Your task to perform on an android device: change timer sound Image 0: 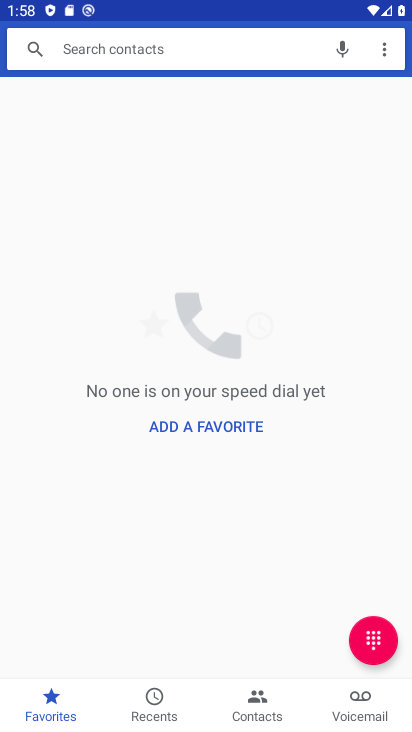
Step 0: press home button
Your task to perform on an android device: change timer sound Image 1: 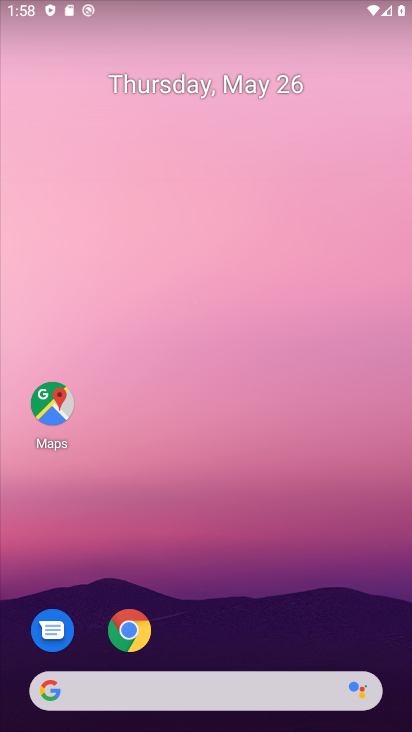
Step 1: drag from (179, 508) to (173, 43)
Your task to perform on an android device: change timer sound Image 2: 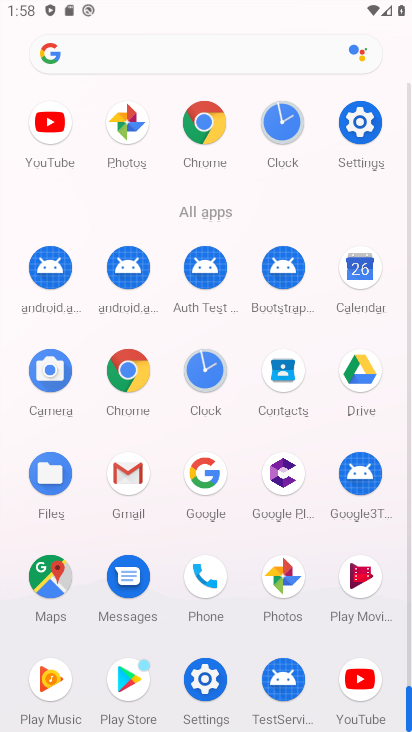
Step 2: click (278, 139)
Your task to perform on an android device: change timer sound Image 3: 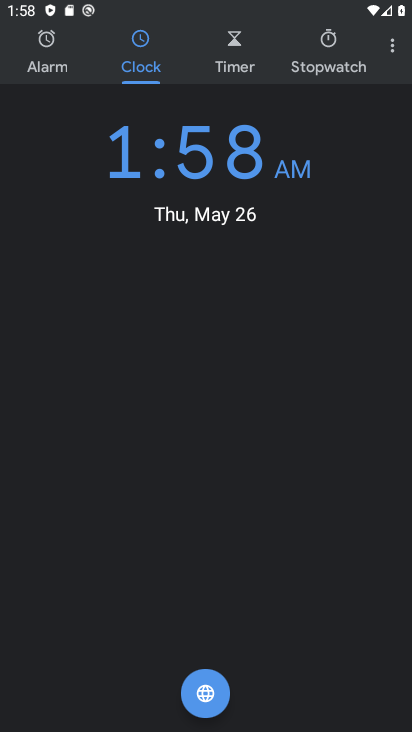
Step 3: click (374, 45)
Your task to perform on an android device: change timer sound Image 4: 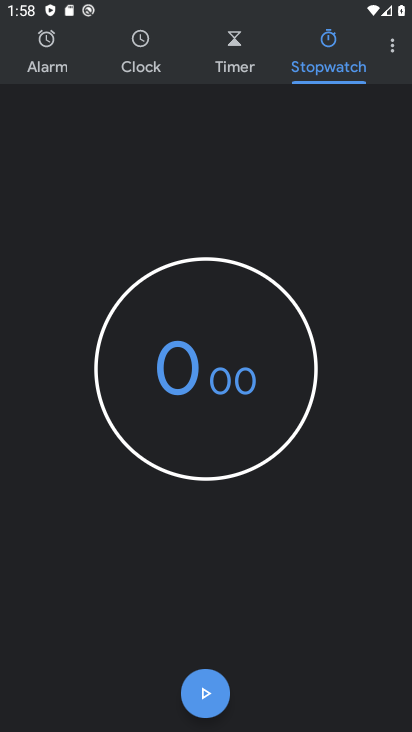
Step 4: click (246, 46)
Your task to perform on an android device: change timer sound Image 5: 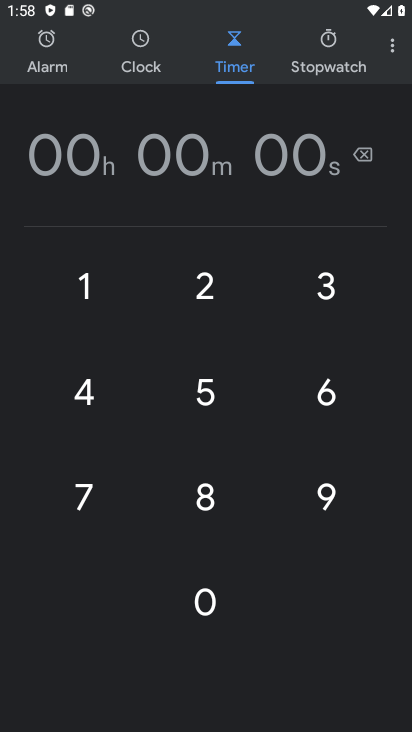
Step 5: click (403, 47)
Your task to perform on an android device: change timer sound Image 6: 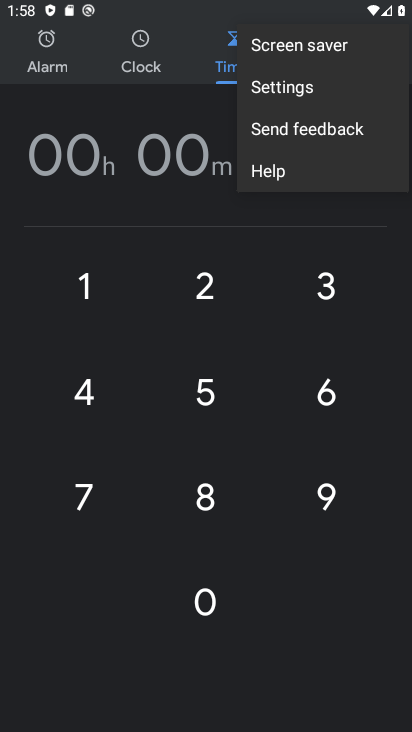
Step 6: click (313, 89)
Your task to perform on an android device: change timer sound Image 7: 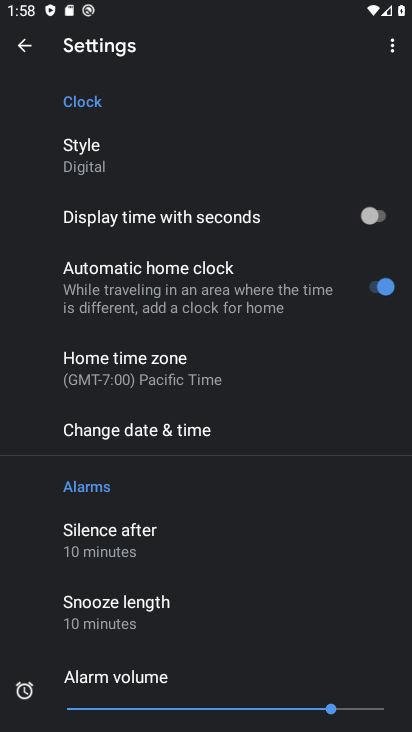
Step 7: drag from (191, 412) to (183, 20)
Your task to perform on an android device: change timer sound Image 8: 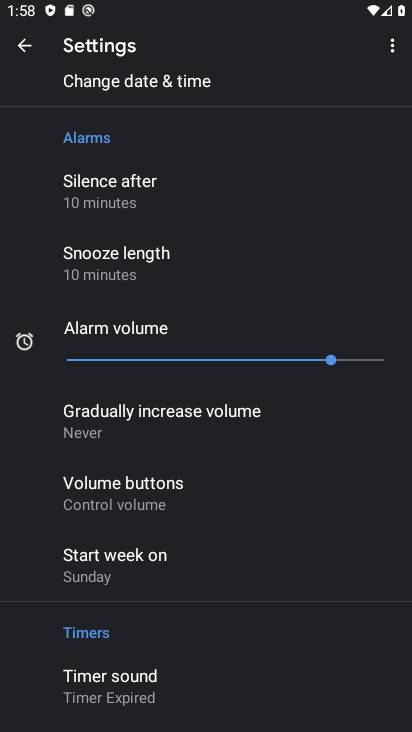
Step 8: drag from (163, 544) to (153, 98)
Your task to perform on an android device: change timer sound Image 9: 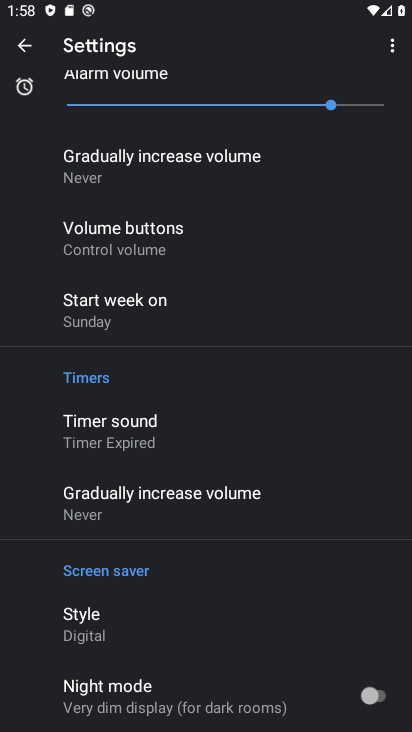
Step 9: click (124, 415)
Your task to perform on an android device: change timer sound Image 10: 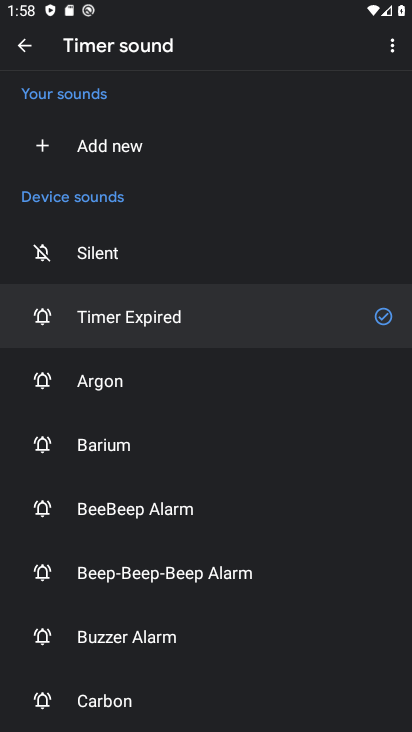
Step 10: click (148, 387)
Your task to perform on an android device: change timer sound Image 11: 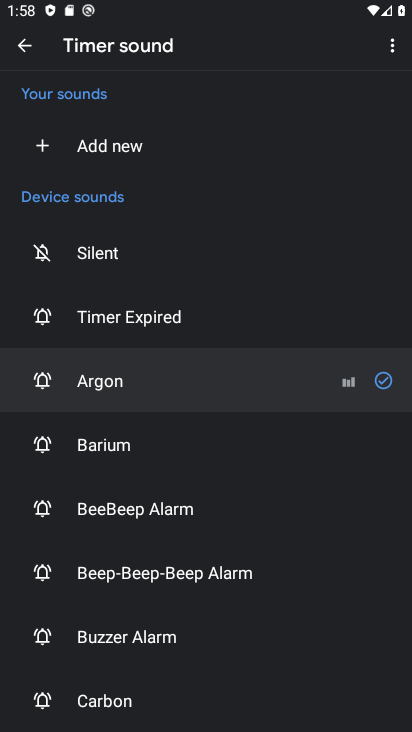
Step 11: task complete